Your task to perform on an android device: Go to Google Image 0: 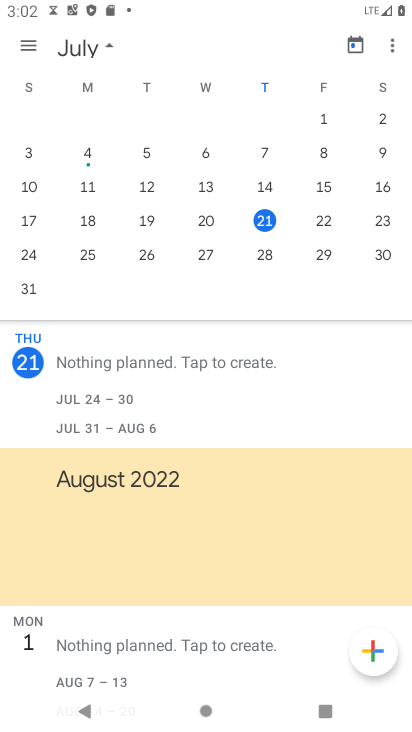
Step 0: press home button
Your task to perform on an android device: Go to Google Image 1: 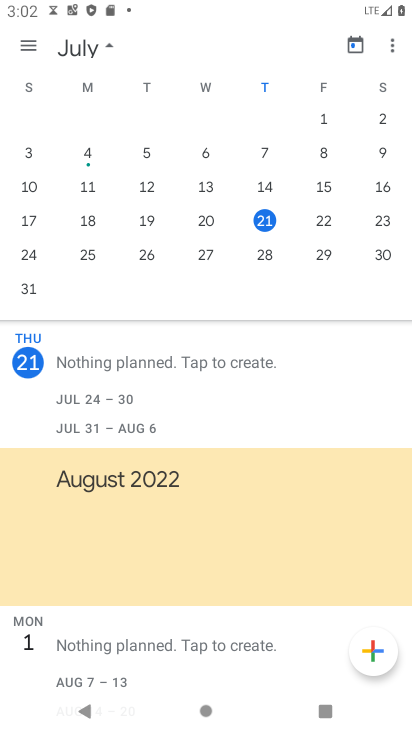
Step 1: drag from (202, 606) to (208, 138)
Your task to perform on an android device: Go to Google Image 2: 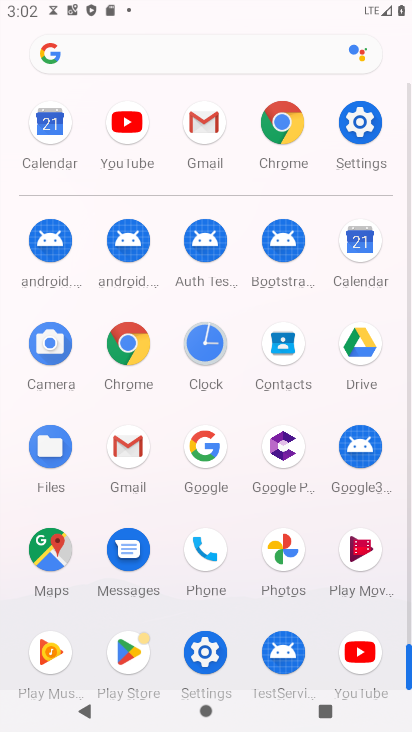
Step 2: click (203, 447)
Your task to perform on an android device: Go to Google Image 3: 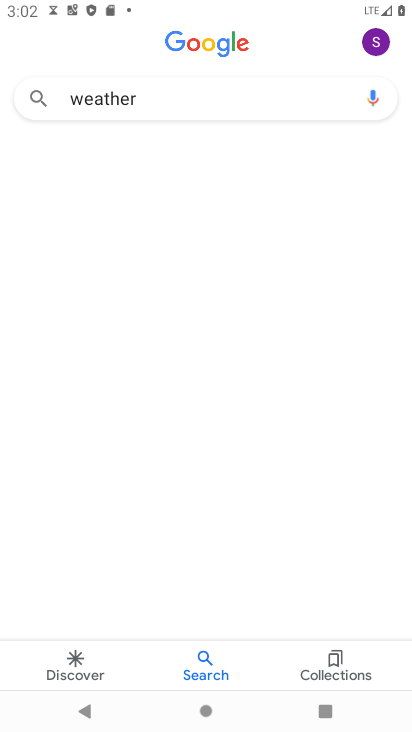
Step 3: task complete